Your task to perform on an android device: snooze an email in the gmail app Image 0: 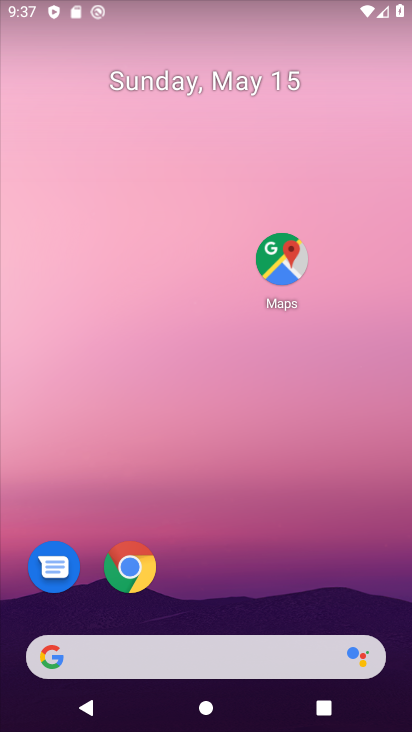
Step 0: drag from (235, 581) to (222, 61)
Your task to perform on an android device: snooze an email in the gmail app Image 1: 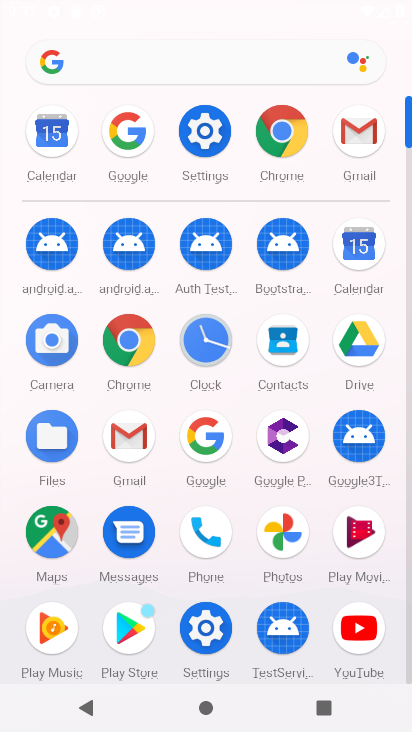
Step 1: click (126, 432)
Your task to perform on an android device: snooze an email in the gmail app Image 2: 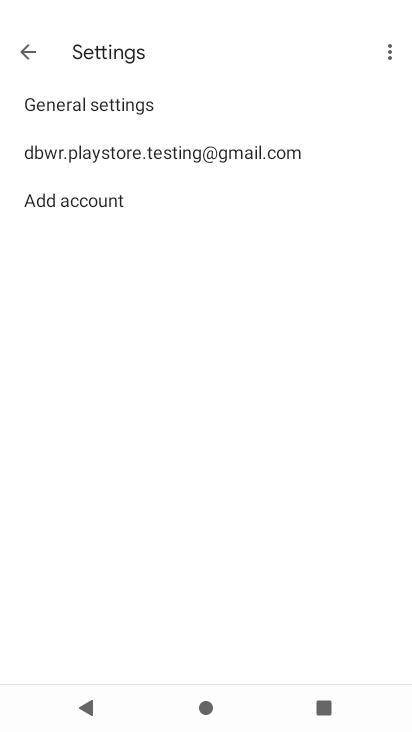
Step 2: press back button
Your task to perform on an android device: snooze an email in the gmail app Image 3: 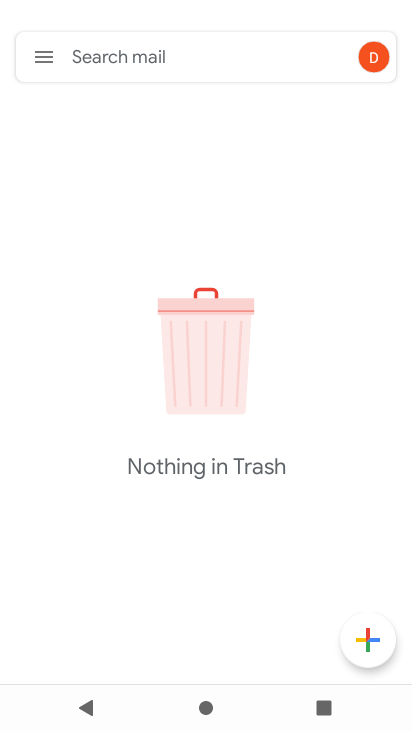
Step 3: click (35, 51)
Your task to perform on an android device: snooze an email in the gmail app Image 4: 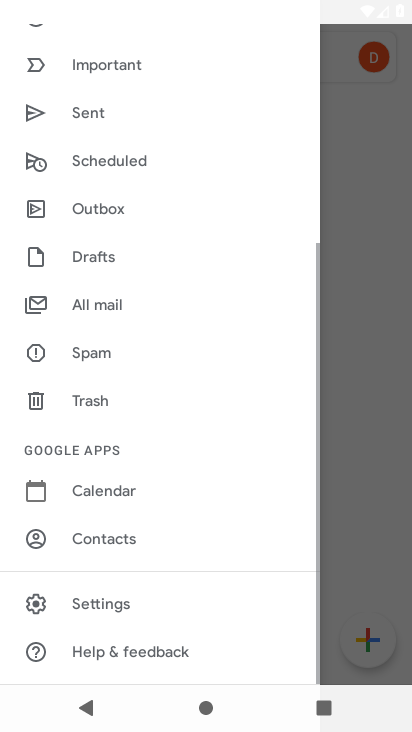
Step 4: click (116, 303)
Your task to perform on an android device: snooze an email in the gmail app Image 5: 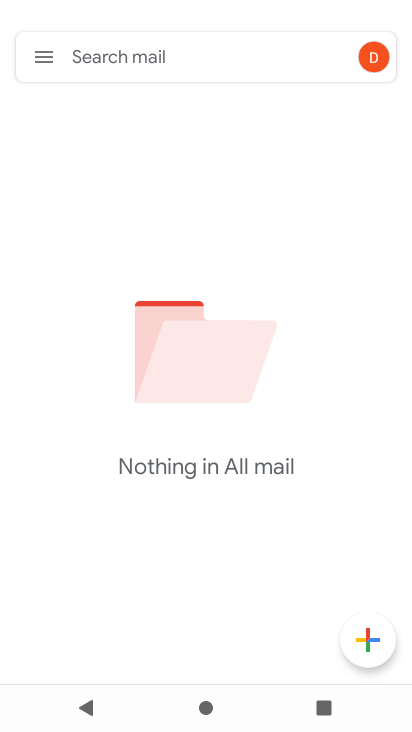
Step 5: task complete